Your task to perform on an android device: open app "Mercado Libre" Image 0: 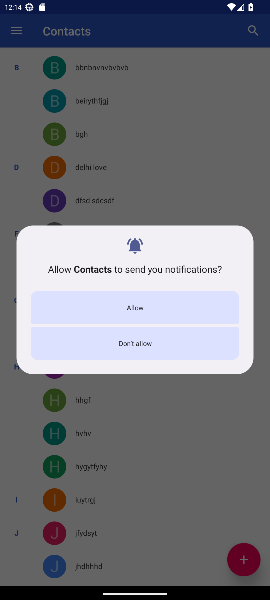
Step 0: press home button
Your task to perform on an android device: open app "Mercado Libre" Image 1: 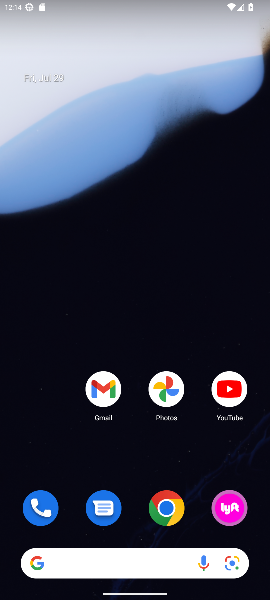
Step 1: drag from (148, 549) to (167, 89)
Your task to perform on an android device: open app "Mercado Libre" Image 2: 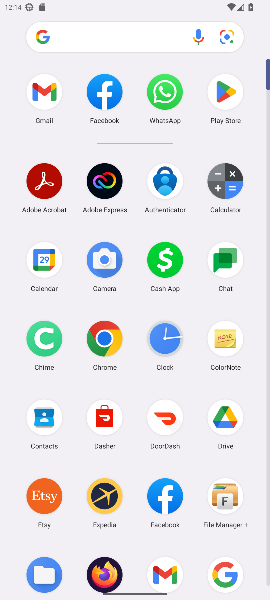
Step 2: click (232, 88)
Your task to perform on an android device: open app "Mercado Libre" Image 3: 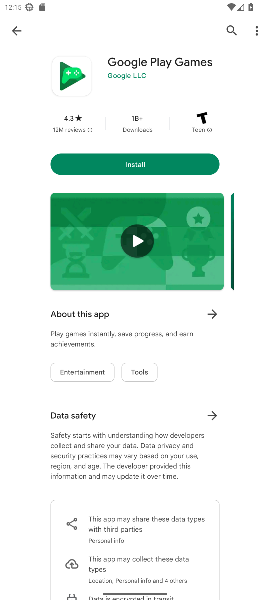
Step 3: click (232, 29)
Your task to perform on an android device: open app "Mercado Libre" Image 4: 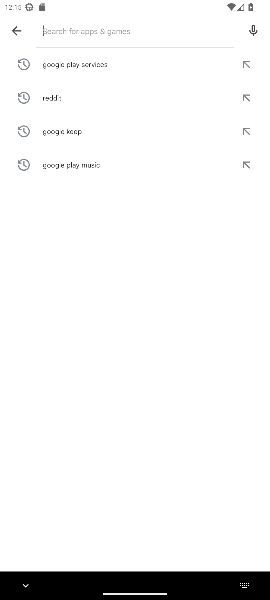
Step 4: type "mercado libre"
Your task to perform on an android device: open app "Mercado Libre" Image 5: 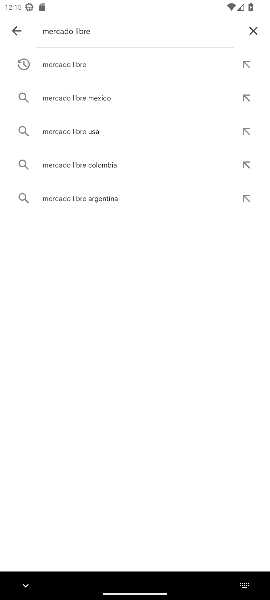
Step 5: click (78, 63)
Your task to perform on an android device: open app "Mercado Libre" Image 6: 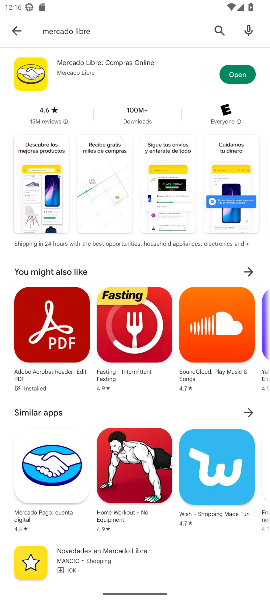
Step 6: click (242, 77)
Your task to perform on an android device: open app "Mercado Libre" Image 7: 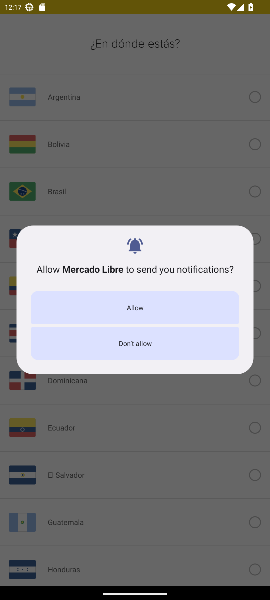
Step 7: task complete